Your task to perform on an android device: turn on improve location accuracy Image 0: 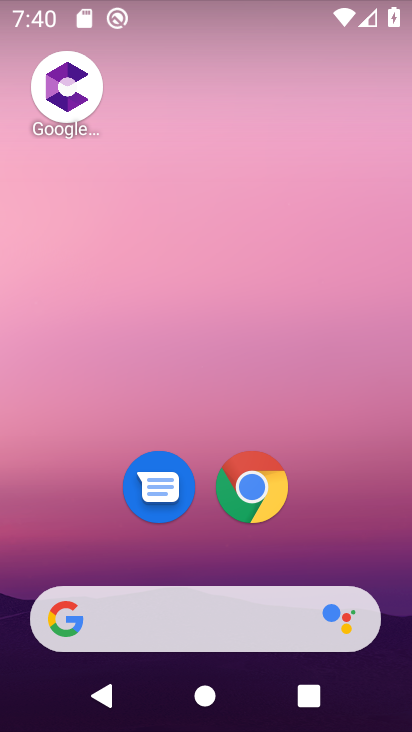
Step 0: drag from (220, 522) to (293, 41)
Your task to perform on an android device: turn on improve location accuracy Image 1: 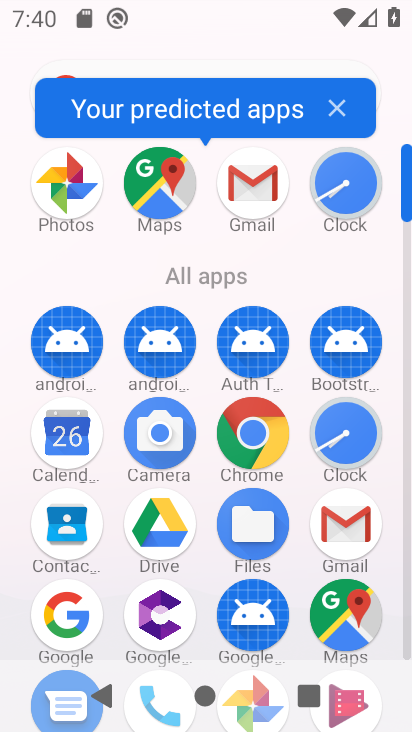
Step 1: drag from (192, 618) to (233, 133)
Your task to perform on an android device: turn on improve location accuracy Image 2: 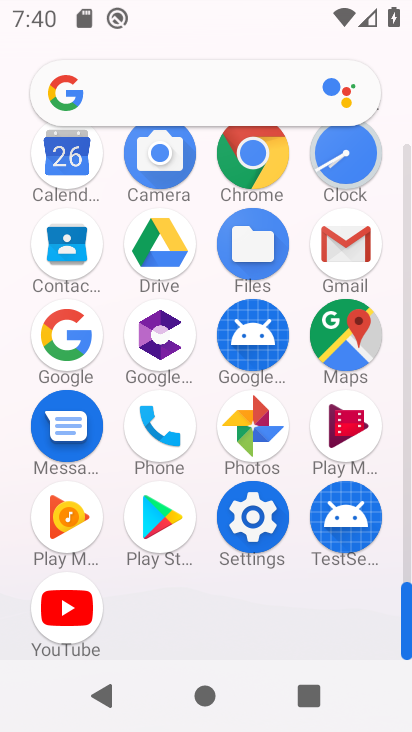
Step 2: click (261, 530)
Your task to perform on an android device: turn on improve location accuracy Image 3: 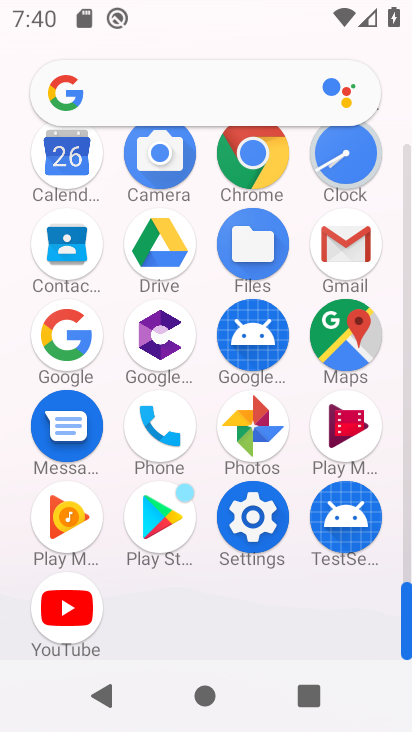
Step 3: click (252, 535)
Your task to perform on an android device: turn on improve location accuracy Image 4: 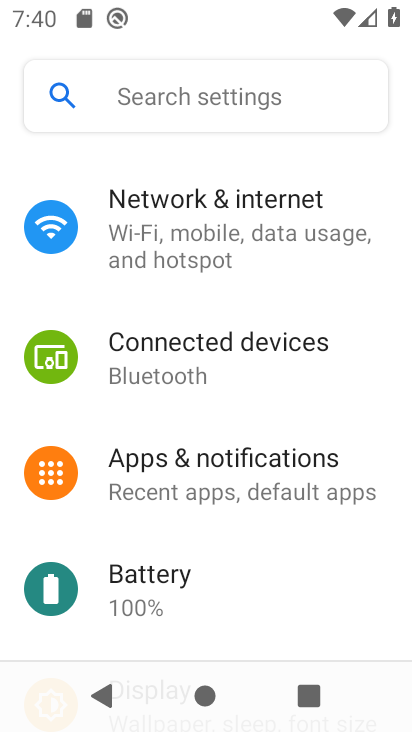
Step 4: drag from (205, 626) to (215, 257)
Your task to perform on an android device: turn on improve location accuracy Image 5: 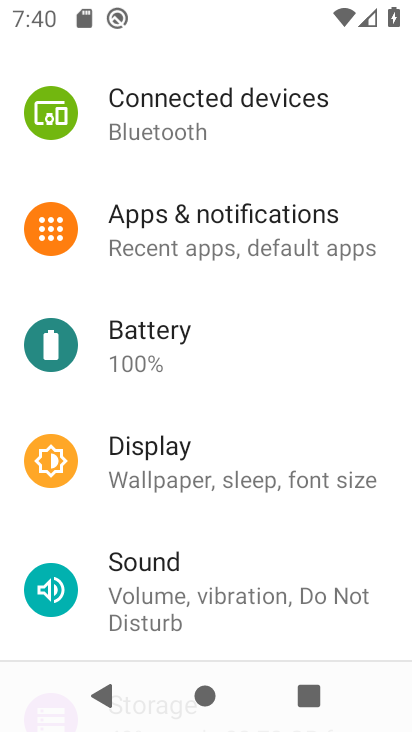
Step 5: drag from (195, 605) to (227, 67)
Your task to perform on an android device: turn on improve location accuracy Image 6: 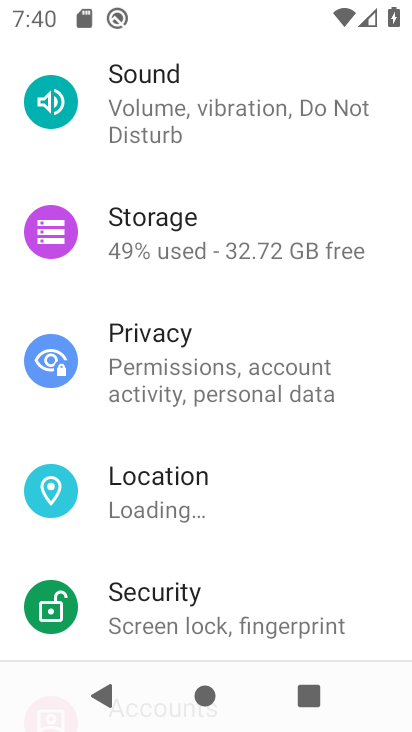
Step 6: click (165, 501)
Your task to perform on an android device: turn on improve location accuracy Image 7: 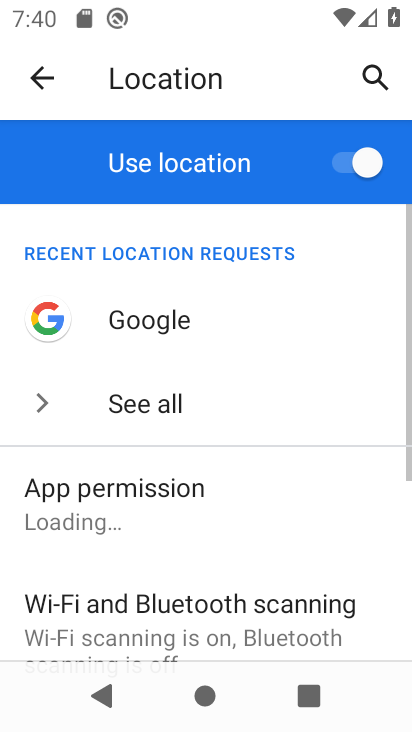
Step 7: drag from (185, 609) to (217, 242)
Your task to perform on an android device: turn on improve location accuracy Image 8: 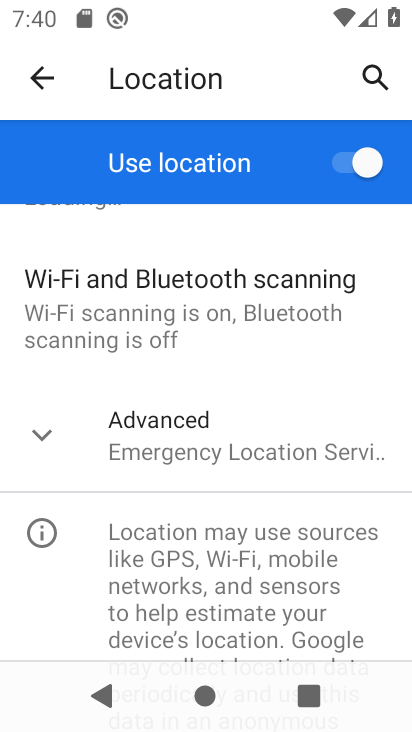
Step 8: click (184, 425)
Your task to perform on an android device: turn on improve location accuracy Image 9: 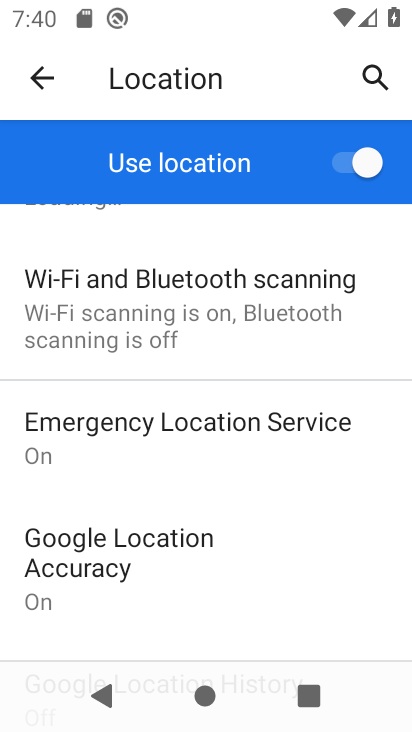
Step 9: click (110, 575)
Your task to perform on an android device: turn on improve location accuracy Image 10: 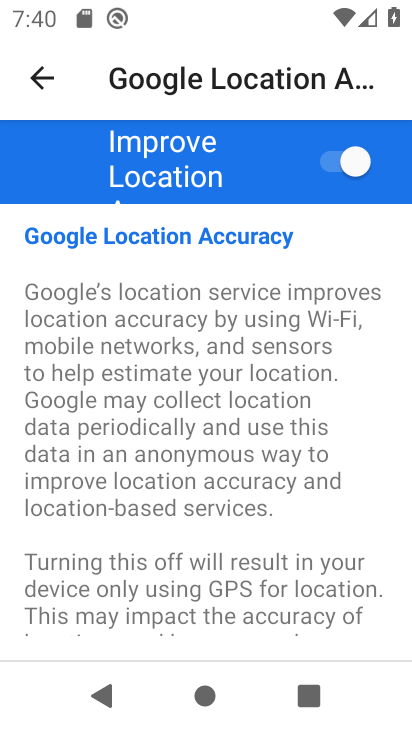
Step 10: task complete